Your task to perform on an android device: turn vacation reply on in the gmail app Image 0: 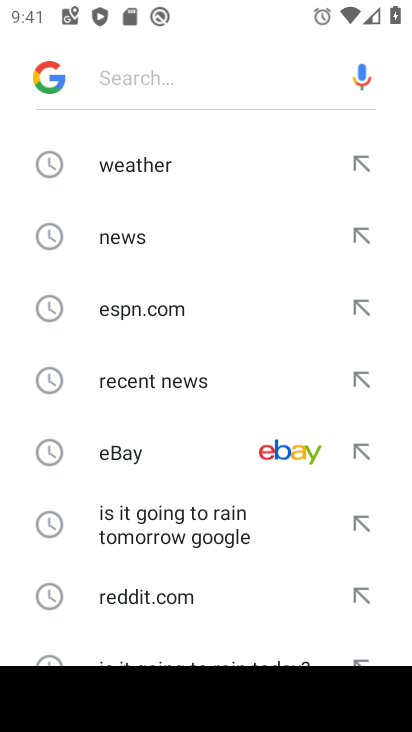
Step 0: press back button
Your task to perform on an android device: turn vacation reply on in the gmail app Image 1: 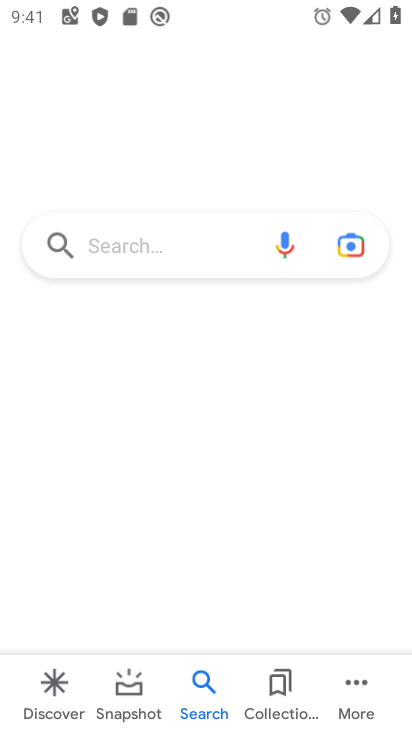
Step 1: press back button
Your task to perform on an android device: turn vacation reply on in the gmail app Image 2: 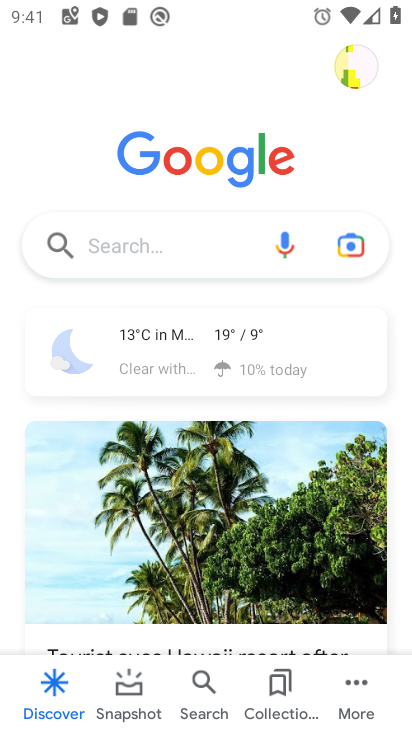
Step 2: press home button
Your task to perform on an android device: turn vacation reply on in the gmail app Image 3: 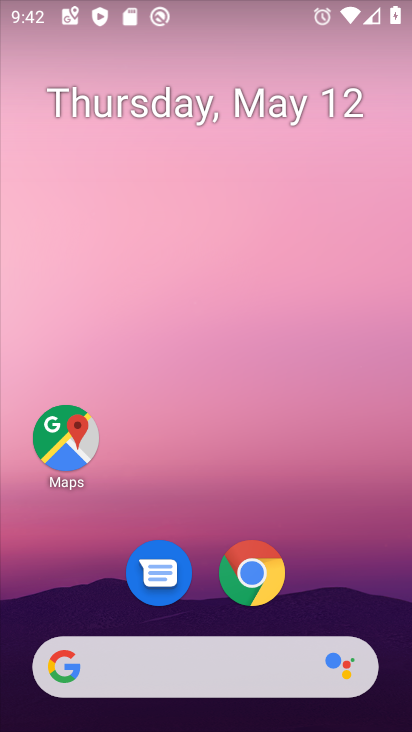
Step 3: drag from (332, 580) to (277, 93)
Your task to perform on an android device: turn vacation reply on in the gmail app Image 4: 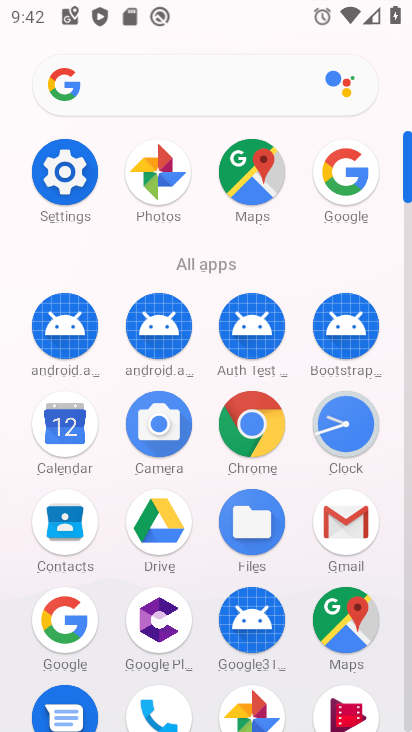
Step 4: click (348, 518)
Your task to perform on an android device: turn vacation reply on in the gmail app Image 5: 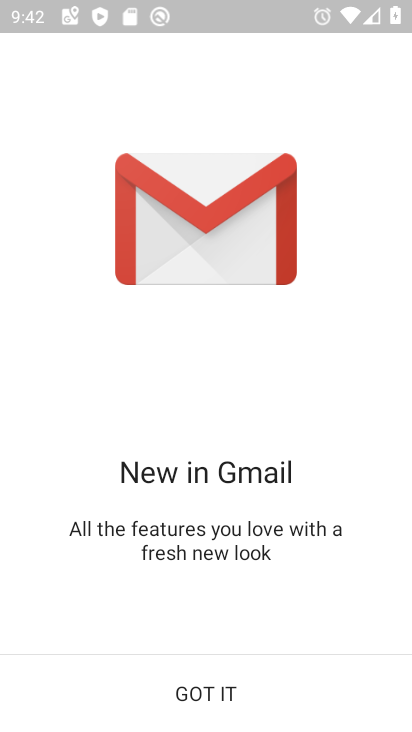
Step 5: click (209, 691)
Your task to perform on an android device: turn vacation reply on in the gmail app Image 6: 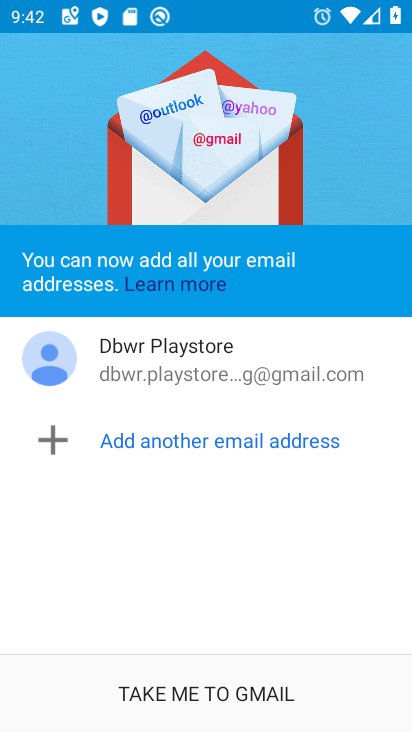
Step 6: click (209, 691)
Your task to perform on an android device: turn vacation reply on in the gmail app Image 7: 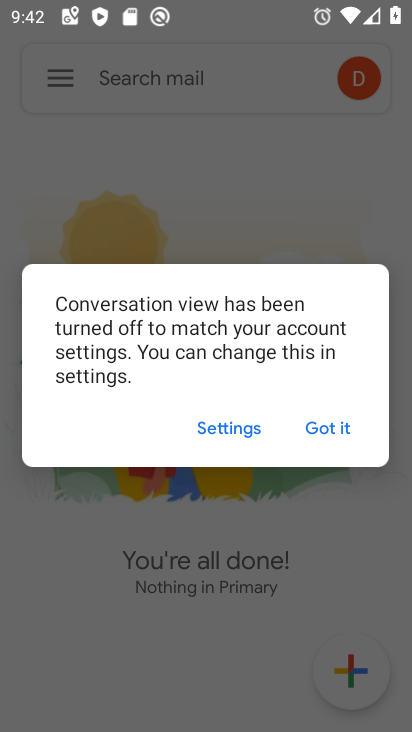
Step 7: click (331, 421)
Your task to perform on an android device: turn vacation reply on in the gmail app Image 8: 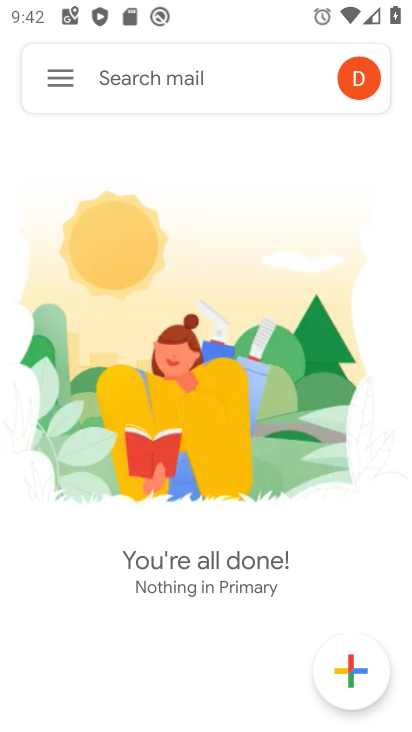
Step 8: click (59, 78)
Your task to perform on an android device: turn vacation reply on in the gmail app Image 9: 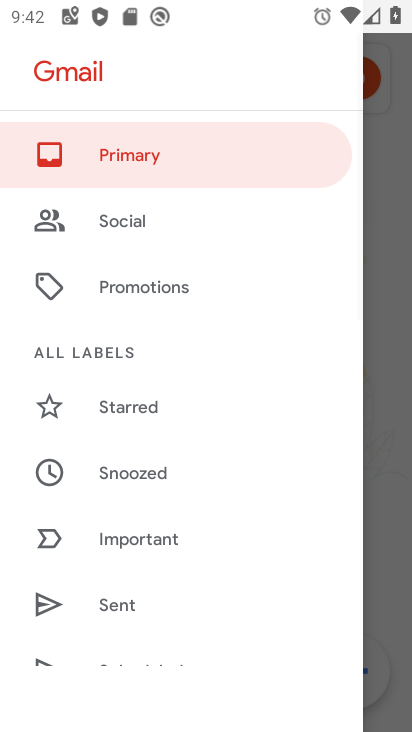
Step 9: drag from (138, 447) to (199, 349)
Your task to perform on an android device: turn vacation reply on in the gmail app Image 10: 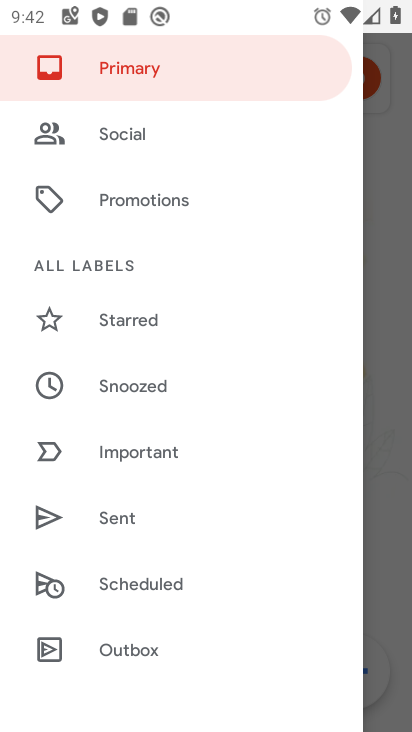
Step 10: drag from (127, 500) to (198, 411)
Your task to perform on an android device: turn vacation reply on in the gmail app Image 11: 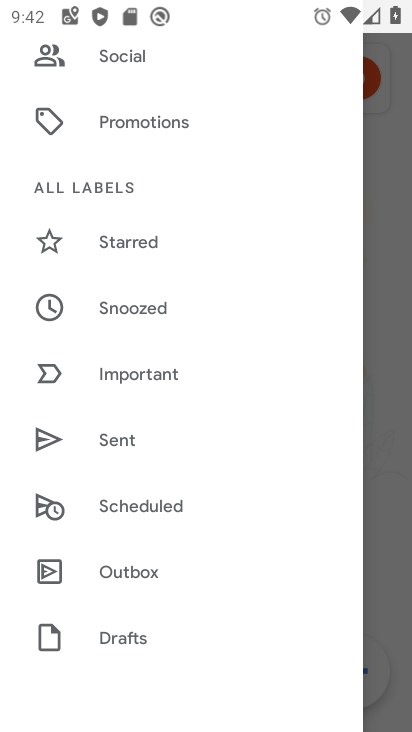
Step 11: drag from (109, 538) to (201, 427)
Your task to perform on an android device: turn vacation reply on in the gmail app Image 12: 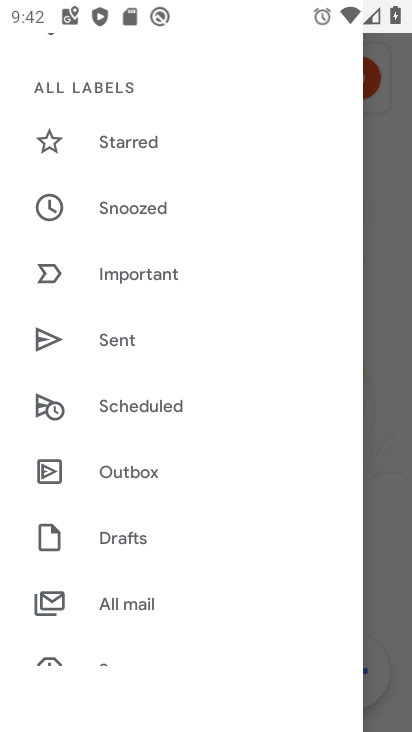
Step 12: drag from (99, 558) to (198, 418)
Your task to perform on an android device: turn vacation reply on in the gmail app Image 13: 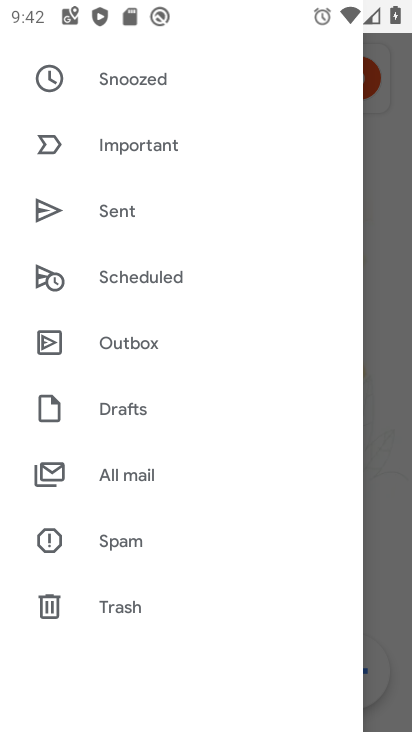
Step 13: drag from (100, 518) to (183, 418)
Your task to perform on an android device: turn vacation reply on in the gmail app Image 14: 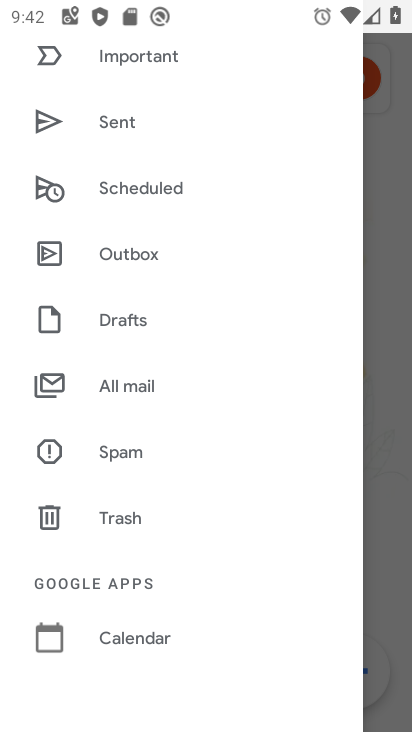
Step 14: drag from (81, 498) to (171, 385)
Your task to perform on an android device: turn vacation reply on in the gmail app Image 15: 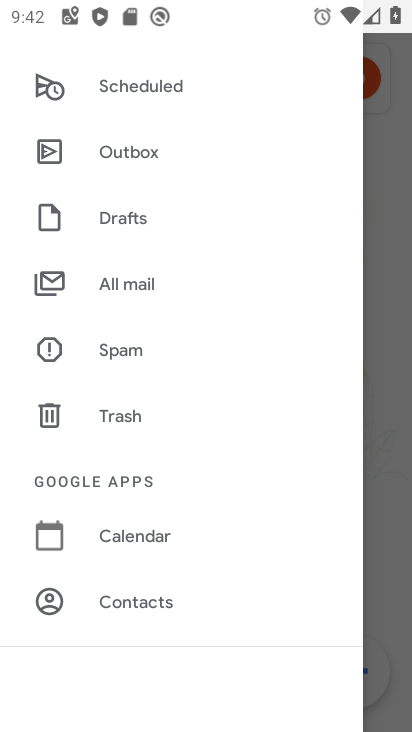
Step 15: drag from (82, 547) to (180, 411)
Your task to perform on an android device: turn vacation reply on in the gmail app Image 16: 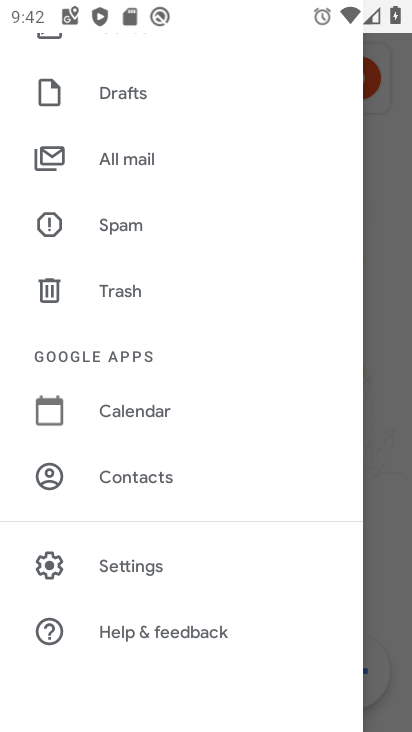
Step 16: click (122, 568)
Your task to perform on an android device: turn vacation reply on in the gmail app Image 17: 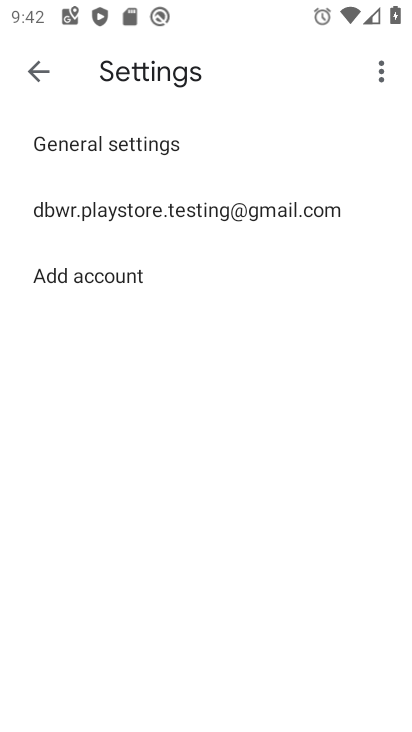
Step 17: click (212, 214)
Your task to perform on an android device: turn vacation reply on in the gmail app Image 18: 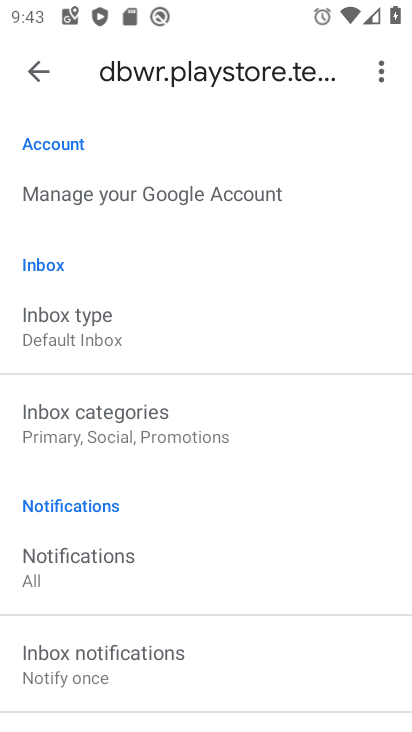
Step 18: drag from (115, 440) to (165, 330)
Your task to perform on an android device: turn vacation reply on in the gmail app Image 19: 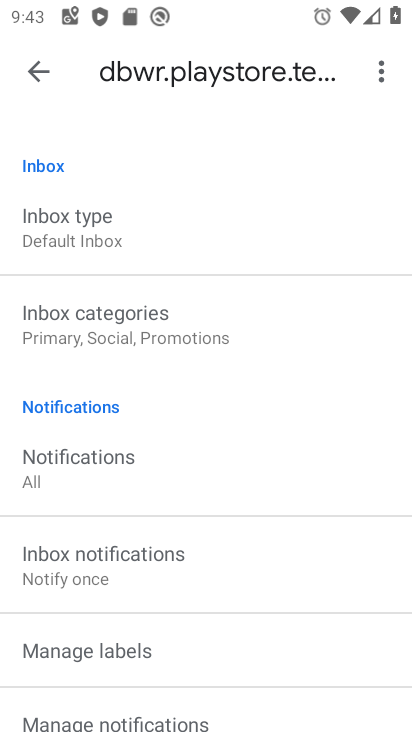
Step 19: drag from (119, 471) to (200, 340)
Your task to perform on an android device: turn vacation reply on in the gmail app Image 20: 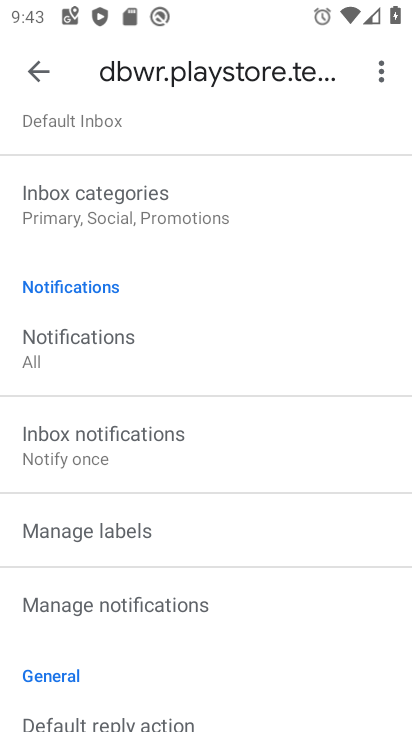
Step 20: drag from (107, 579) to (211, 437)
Your task to perform on an android device: turn vacation reply on in the gmail app Image 21: 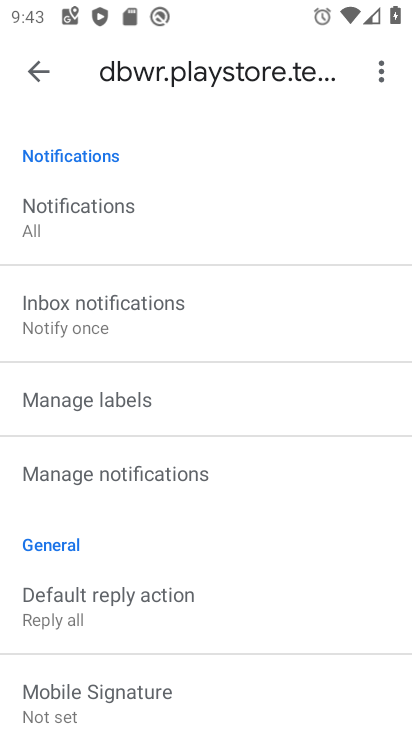
Step 21: drag from (107, 621) to (220, 467)
Your task to perform on an android device: turn vacation reply on in the gmail app Image 22: 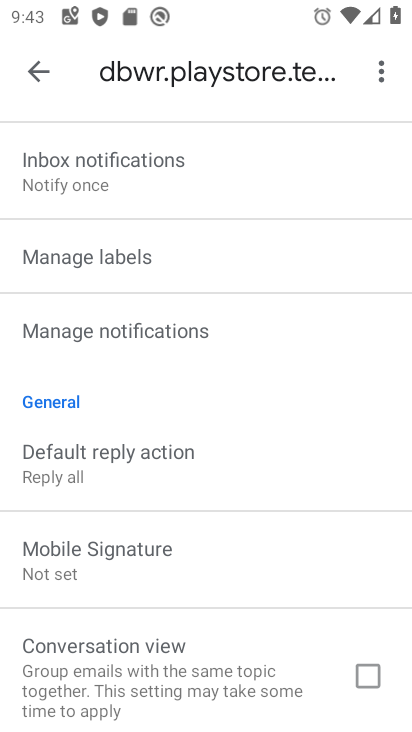
Step 22: drag from (85, 624) to (184, 446)
Your task to perform on an android device: turn vacation reply on in the gmail app Image 23: 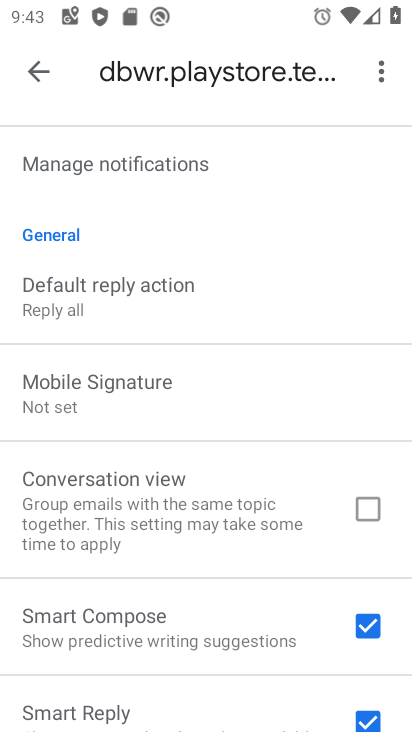
Step 23: drag from (102, 689) to (247, 470)
Your task to perform on an android device: turn vacation reply on in the gmail app Image 24: 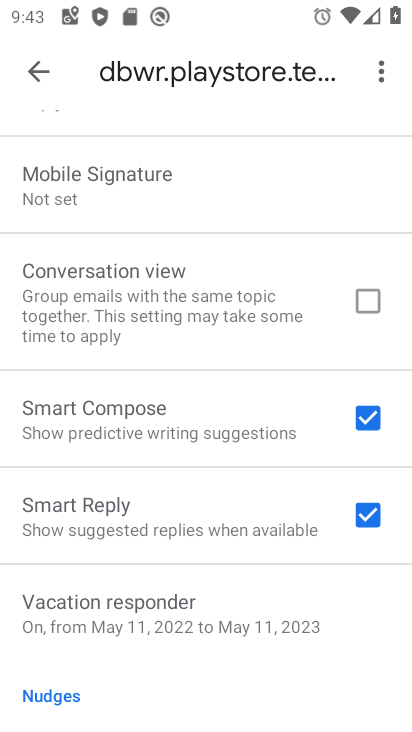
Step 24: click (107, 612)
Your task to perform on an android device: turn vacation reply on in the gmail app Image 25: 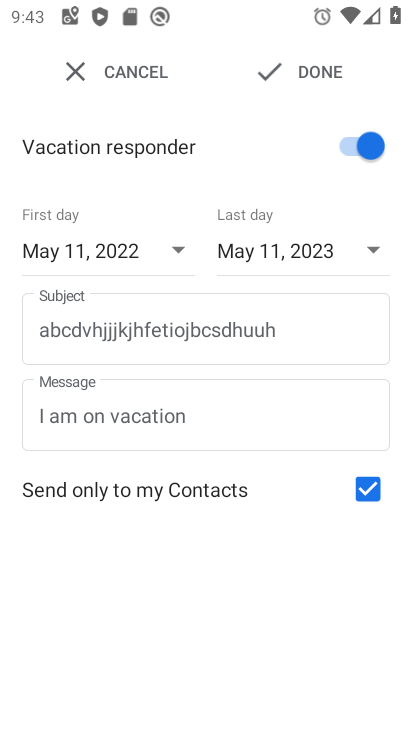
Step 25: task complete